Your task to perform on an android device: Open Reddit.com Image 0: 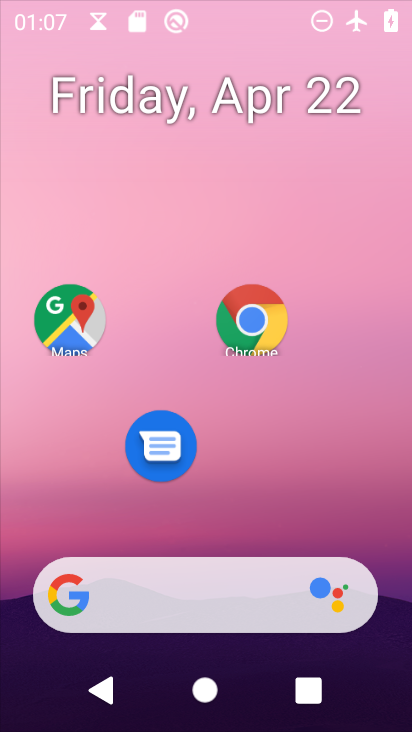
Step 0: drag from (182, 503) to (204, 192)
Your task to perform on an android device: Open Reddit.com Image 1: 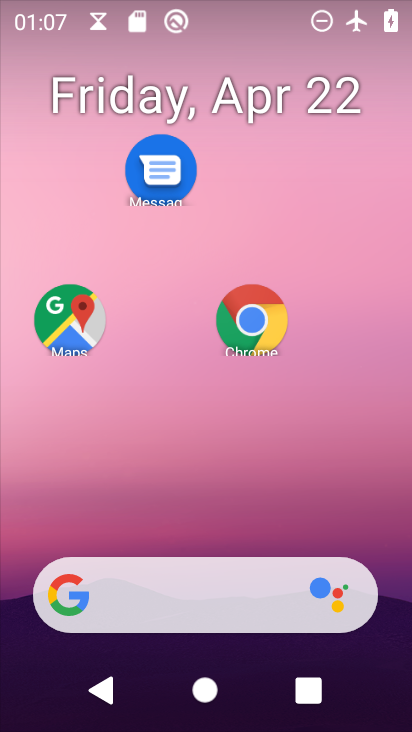
Step 1: click (171, 582)
Your task to perform on an android device: Open Reddit.com Image 2: 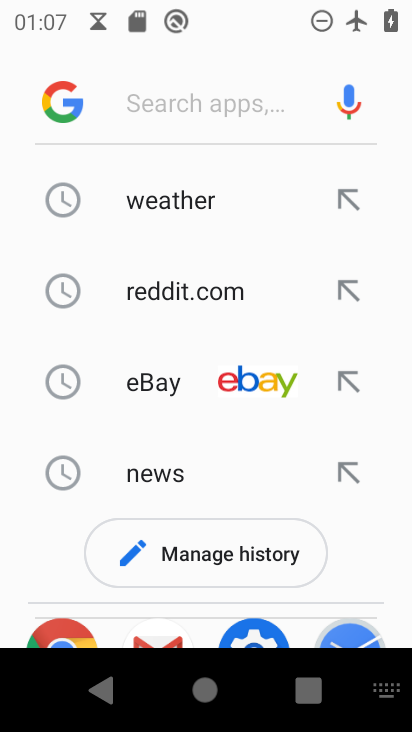
Step 2: click (182, 299)
Your task to perform on an android device: Open Reddit.com Image 3: 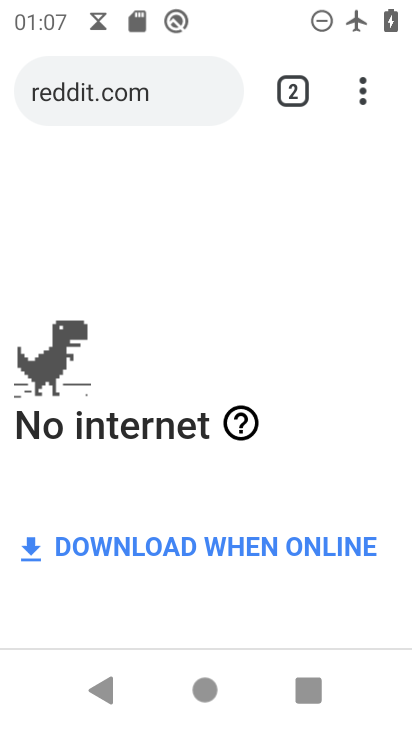
Step 3: task complete